Your task to perform on an android device: Go to notification settings Image 0: 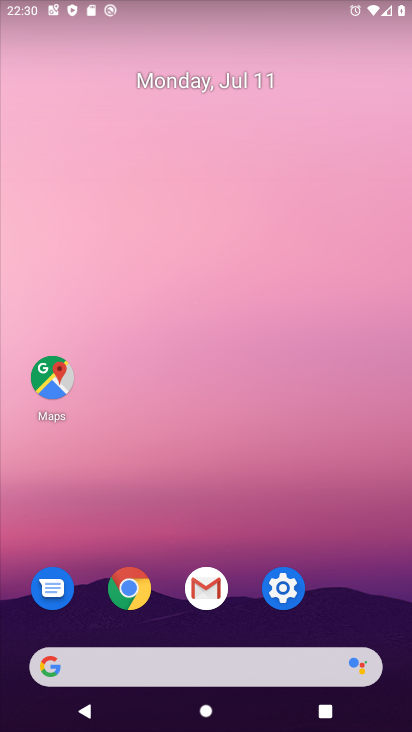
Step 0: click (280, 588)
Your task to perform on an android device: Go to notification settings Image 1: 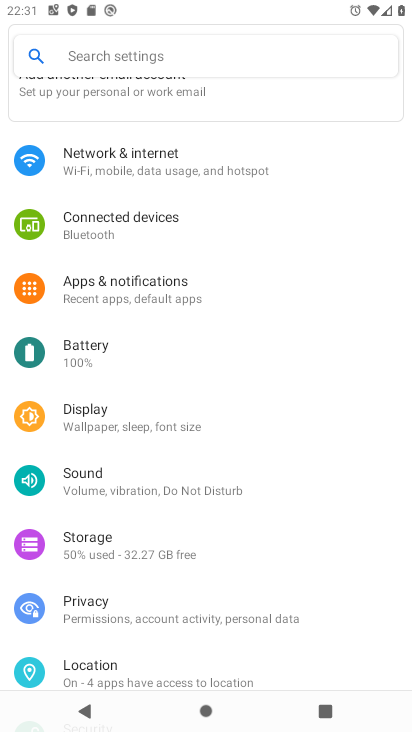
Step 1: click (117, 52)
Your task to perform on an android device: Go to notification settings Image 2: 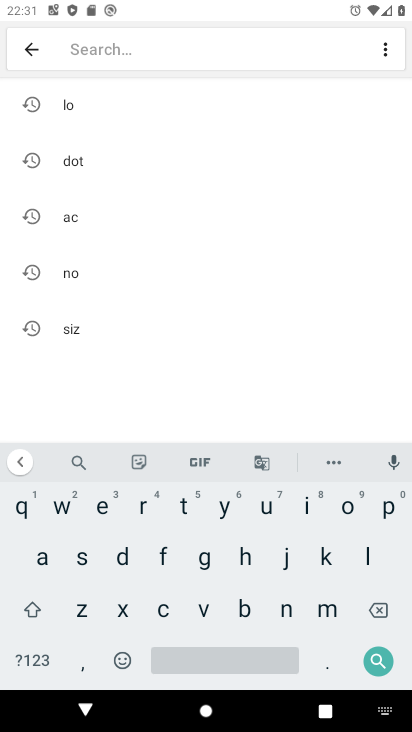
Step 2: click (99, 273)
Your task to perform on an android device: Go to notification settings Image 3: 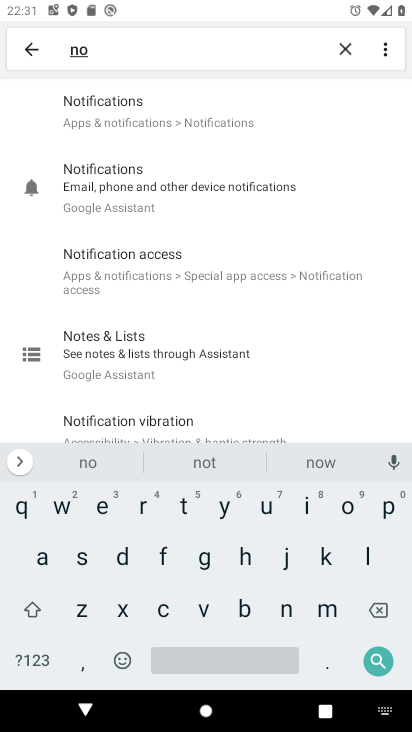
Step 3: click (150, 125)
Your task to perform on an android device: Go to notification settings Image 4: 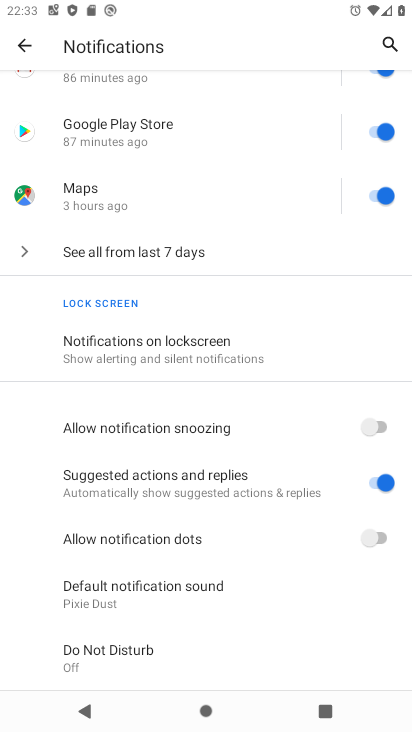
Step 4: click (182, 346)
Your task to perform on an android device: Go to notification settings Image 5: 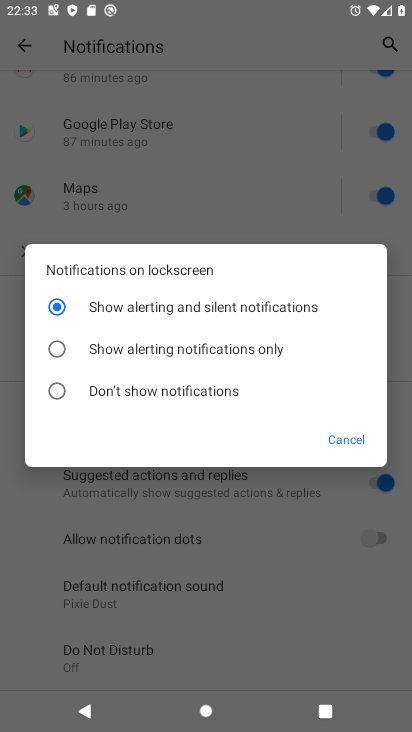
Step 5: task complete